Your task to perform on an android device: Open Google Chrome Image 0: 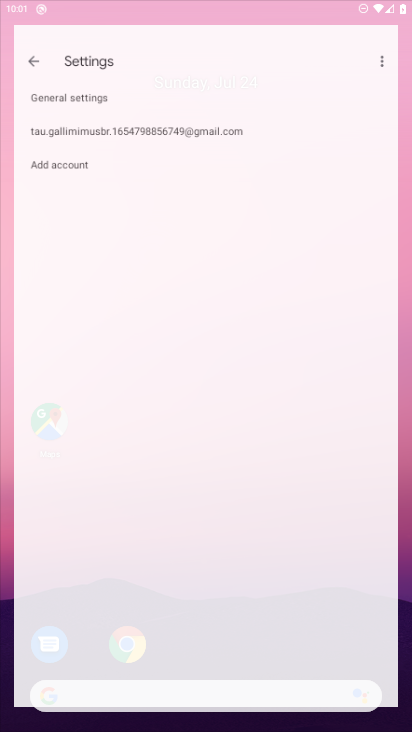
Step 0: press home button
Your task to perform on an android device: Open Google Chrome Image 1: 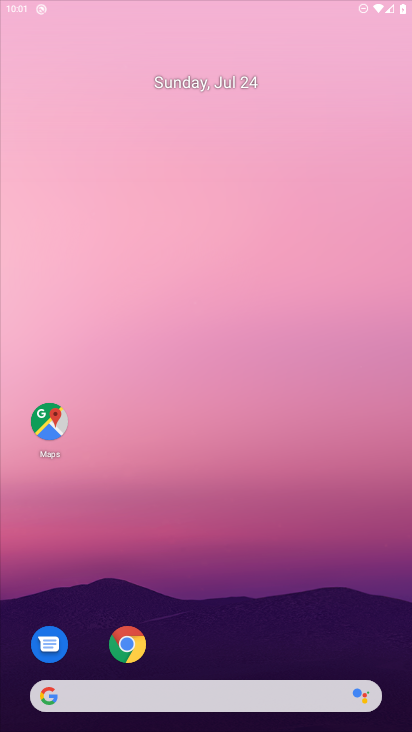
Step 1: drag from (196, 658) to (187, 220)
Your task to perform on an android device: Open Google Chrome Image 2: 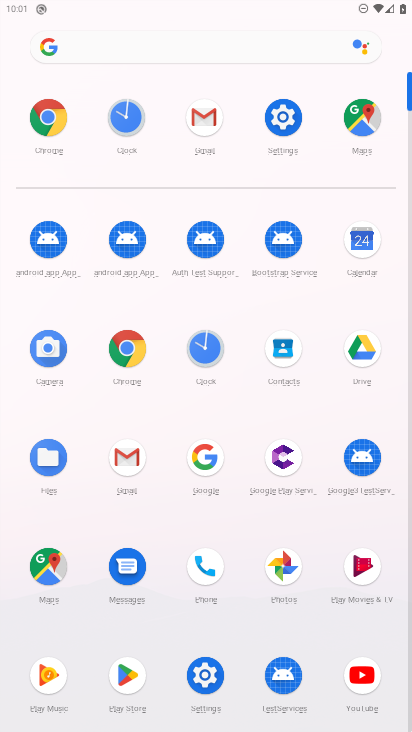
Step 2: click (117, 365)
Your task to perform on an android device: Open Google Chrome Image 3: 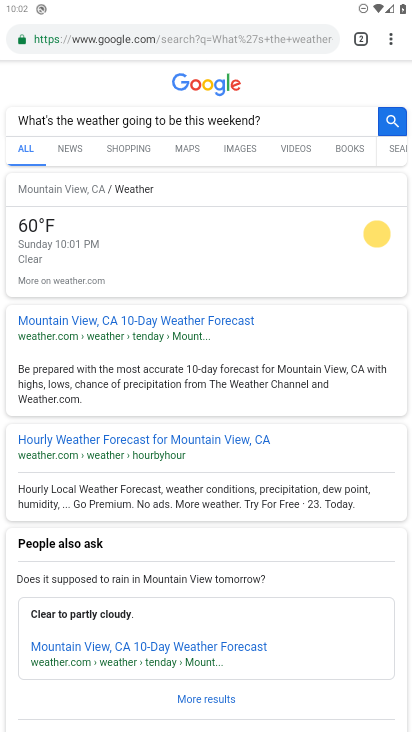
Step 3: task complete